Your task to perform on an android device: open a new tab in the chrome app Image 0: 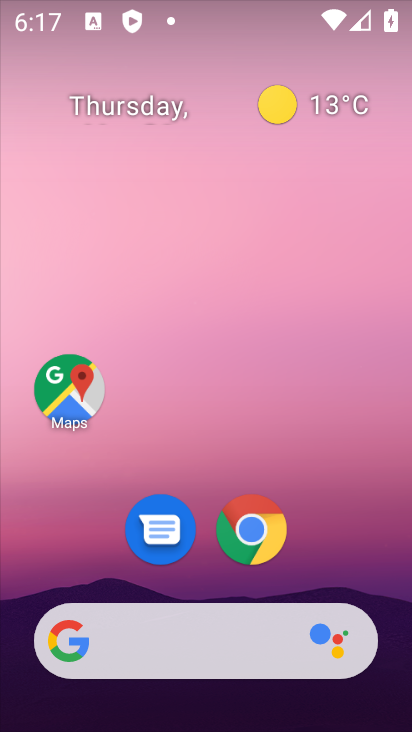
Step 0: drag from (266, 650) to (370, 8)
Your task to perform on an android device: open a new tab in the chrome app Image 1: 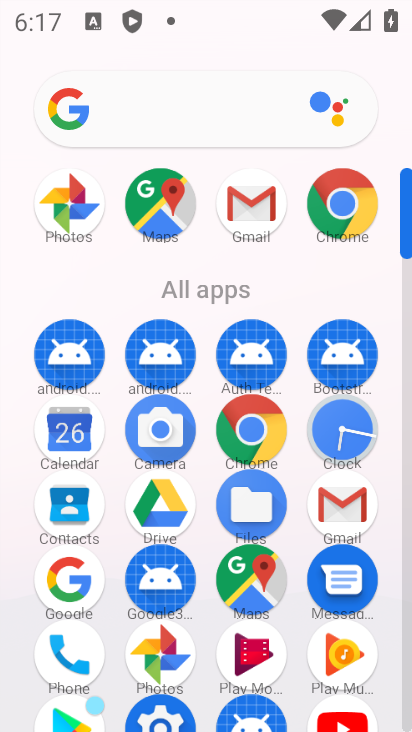
Step 1: click (262, 428)
Your task to perform on an android device: open a new tab in the chrome app Image 2: 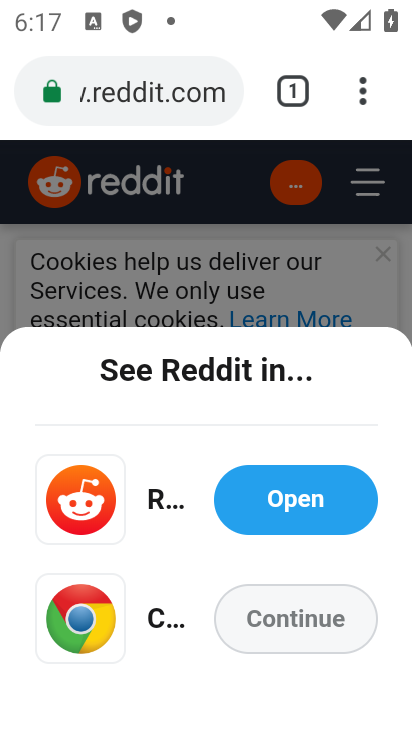
Step 2: task complete